Your task to perform on an android device: toggle javascript in the chrome app Image 0: 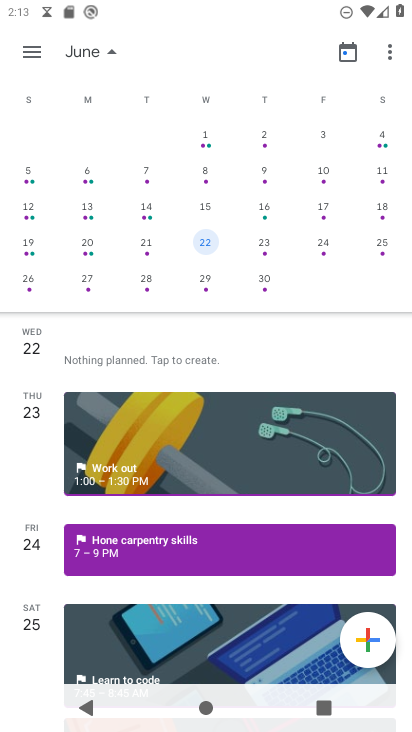
Step 0: press home button
Your task to perform on an android device: toggle javascript in the chrome app Image 1: 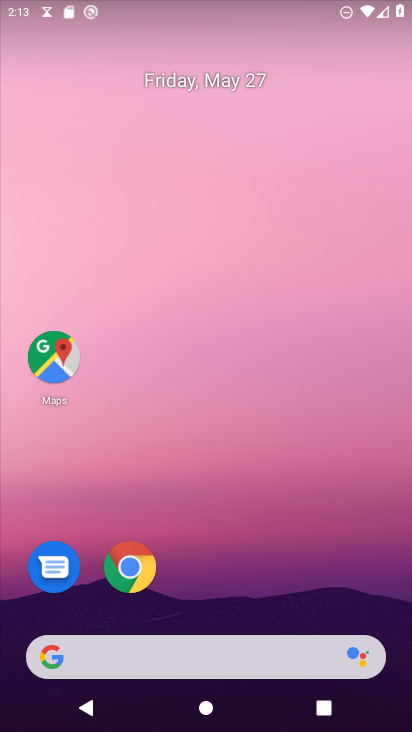
Step 1: click (141, 577)
Your task to perform on an android device: toggle javascript in the chrome app Image 2: 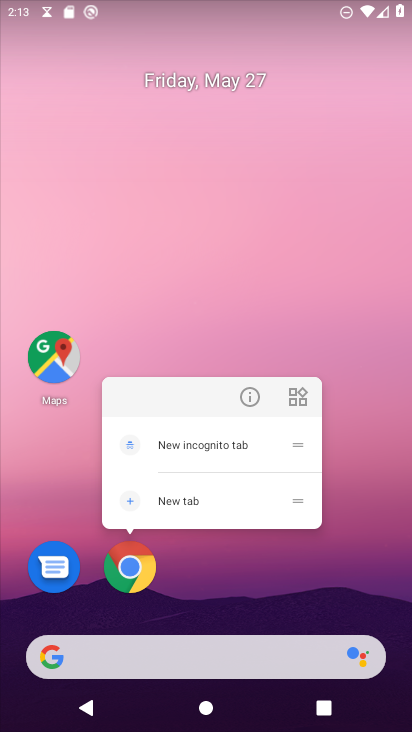
Step 2: click (141, 577)
Your task to perform on an android device: toggle javascript in the chrome app Image 3: 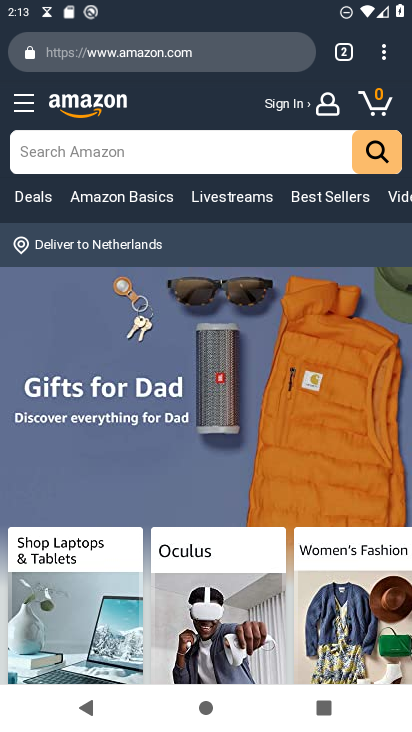
Step 3: click (395, 51)
Your task to perform on an android device: toggle javascript in the chrome app Image 4: 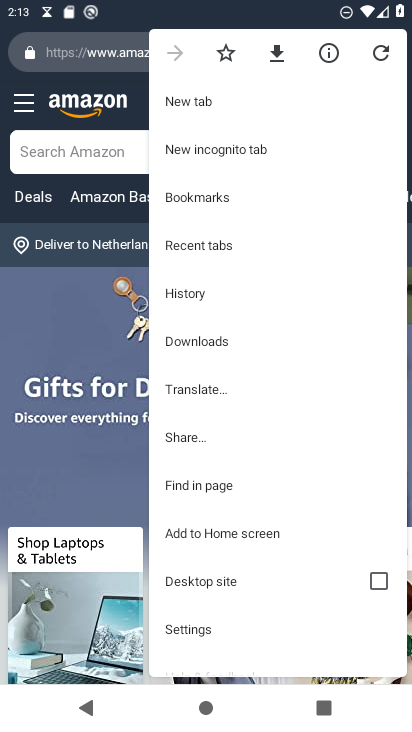
Step 4: click (206, 630)
Your task to perform on an android device: toggle javascript in the chrome app Image 5: 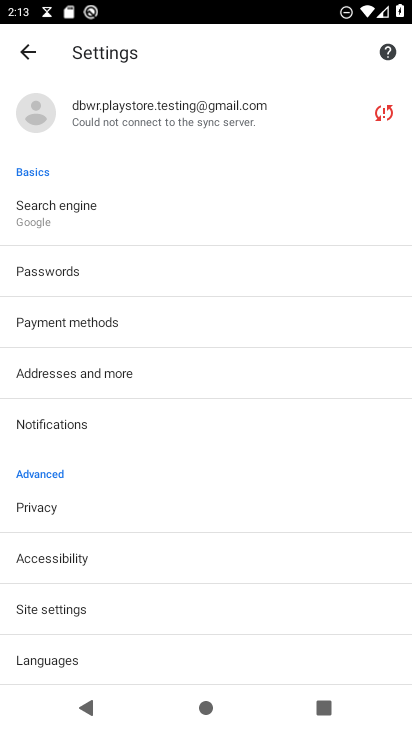
Step 5: drag from (189, 653) to (194, 275)
Your task to perform on an android device: toggle javascript in the chrome app Image 6: 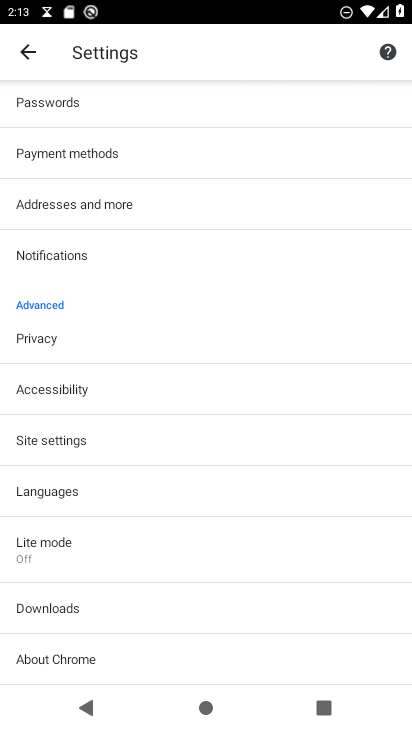
Step 6: click (136, 437)
Your task to perform on an android device: toggle javascript in the chrome app Image 7: 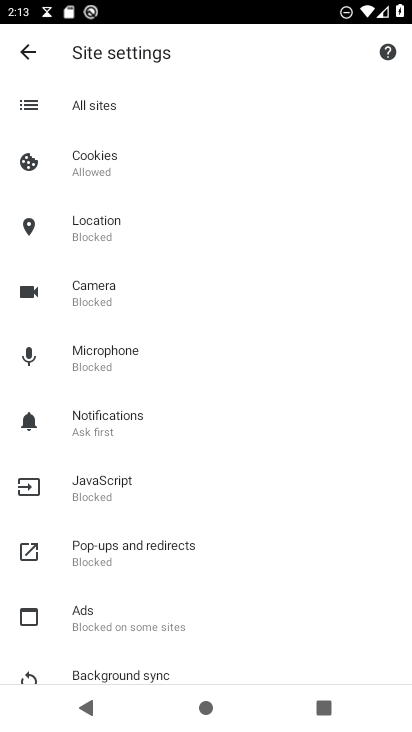
Step 7: click (137, 500)
Your task to perform on an android device: toggle javascript in the chrome app Image 8: 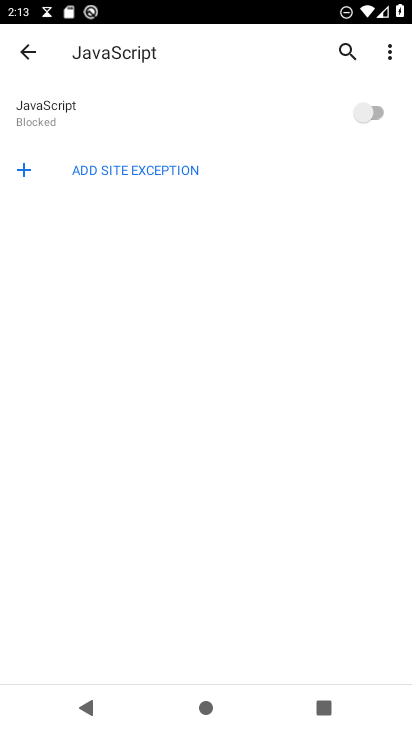
Step 8: click (375, 109)
Your task to perform on an android device: toggle javascript in the chrome app Image 9: 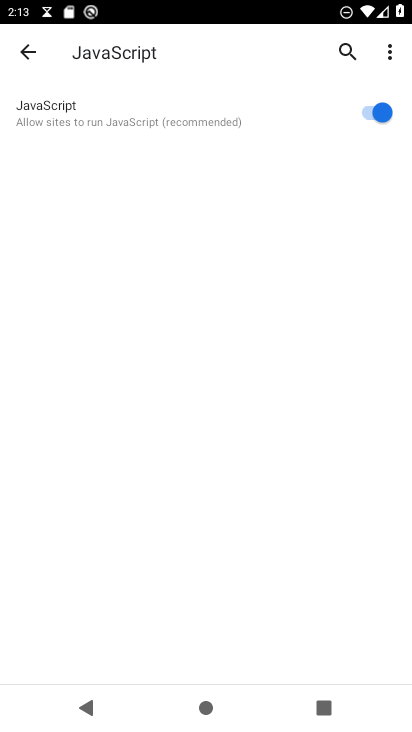
Step 9: task complete